Your task to perform on an android device: turn on wifi Image 0: 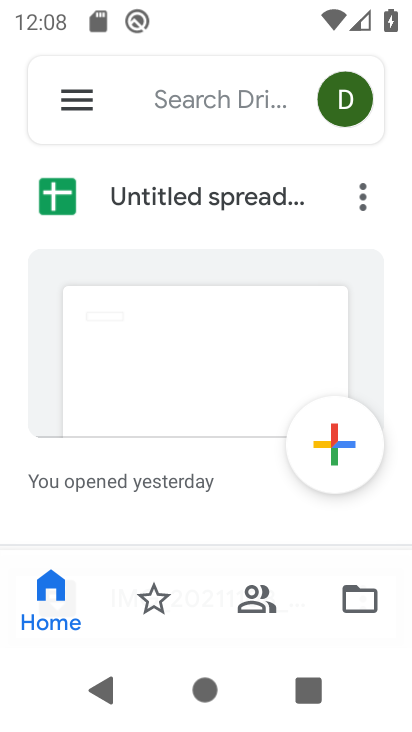
Step 0: press home button
Your task to perform on an android device: turn on wifi Image 1: 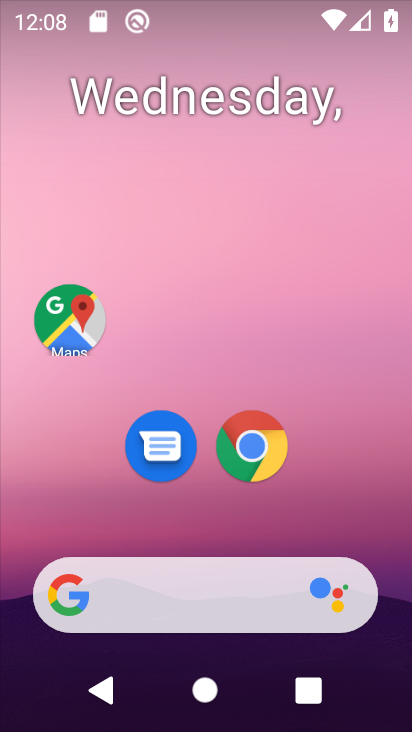
Step 1: drag from (329, 558) to (350, 7)
Your task to perform on an android device: turn on wifi Image 2: 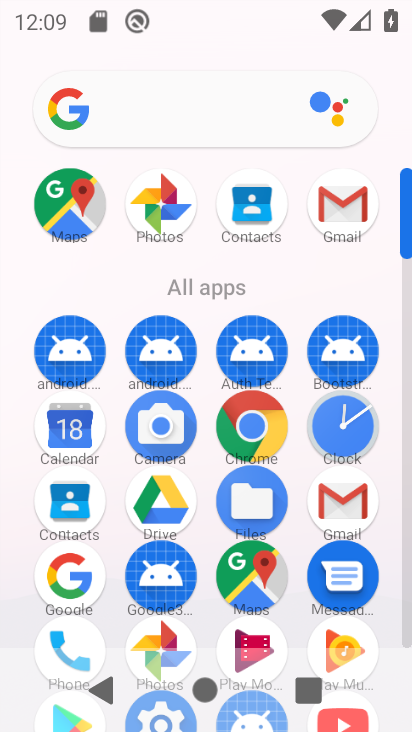
Step 2: click (406, 461)
Your task to perform on an android device: turn on wifi Image 3: 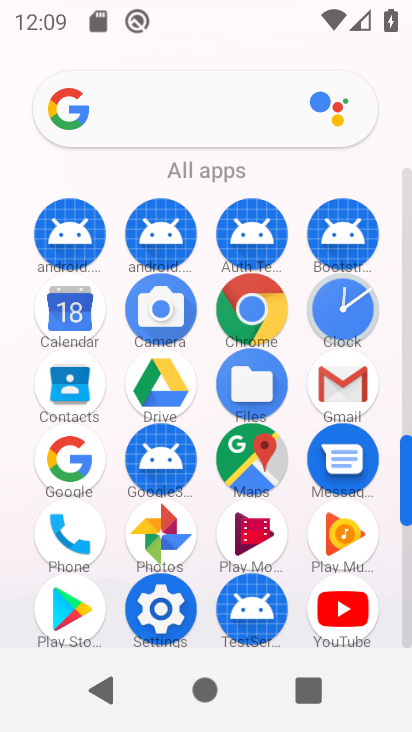
Step 3: click (167, 603)
Your task to perform on an android device: turn on wifi Image 4: 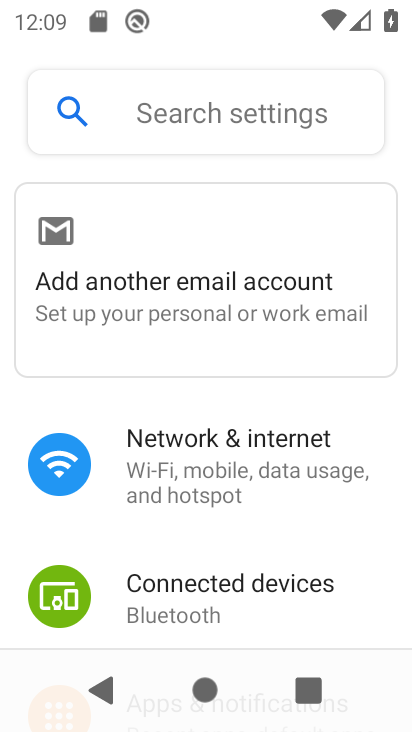
Step 4: click (199, 483)
Your task to perform on an android device: turn on wifi Image 5: 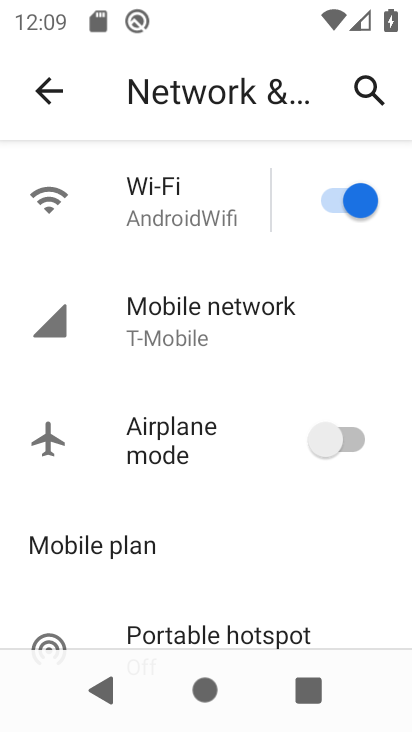
Step 5: task complete